Your task to perform on an android device: What's the weather? Image 0: 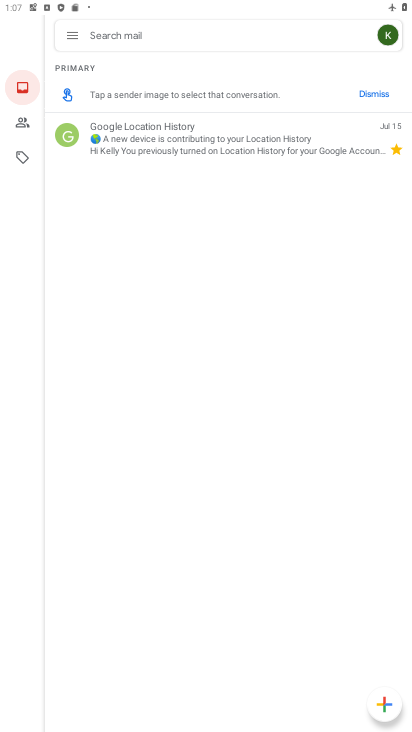
Step 0: press home button
Your task to perform on an android device: What's the weather? Image 1: 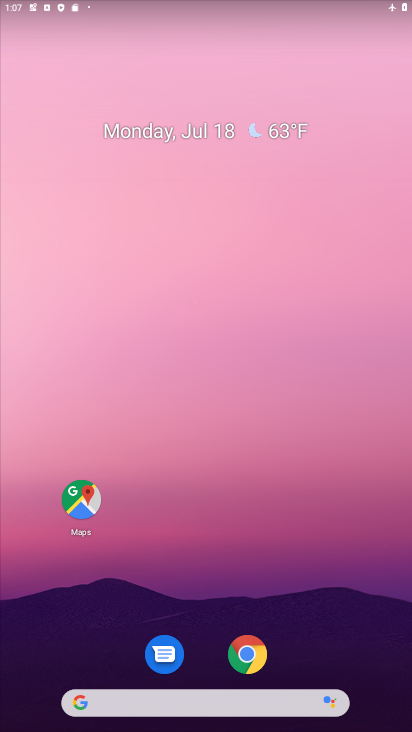
Step 1: drag from (202, 597) to (168, 81)
Your task to perform on an android device: What's the weather? Image 2: 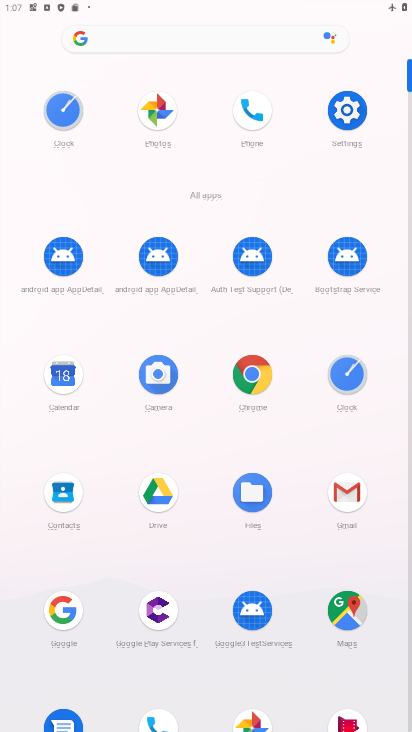
Step 2: click (58, 620)
Your task to perform on an android device: What's the weather? Image 3: 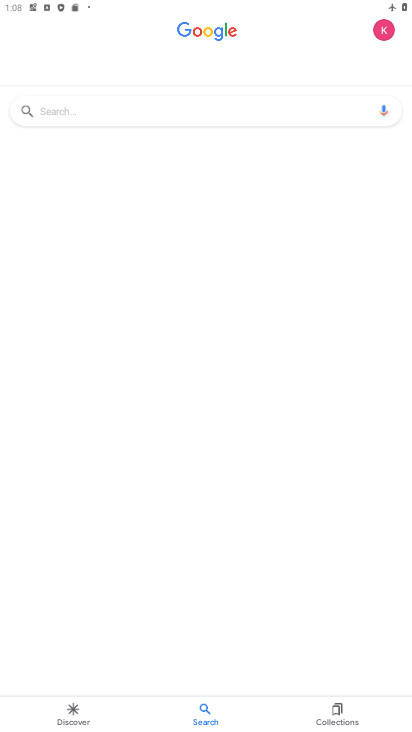
Step 3: click (97, 117)
Your task to perform on an android device: What's the weather? Image 4: 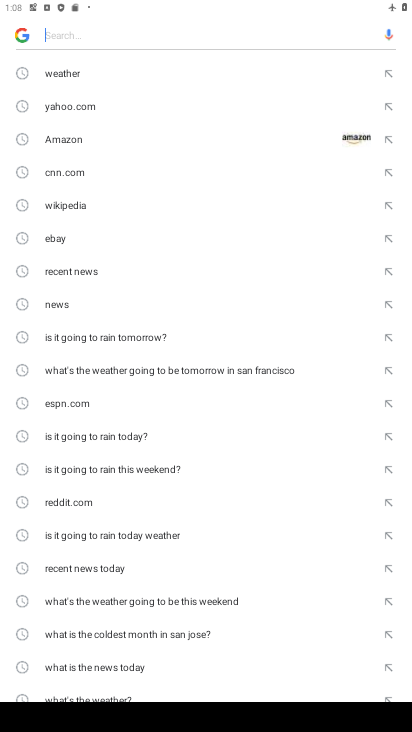
Step 4: click (62, 63)
Your task to perform on an android device: What's the weather? Image 5: 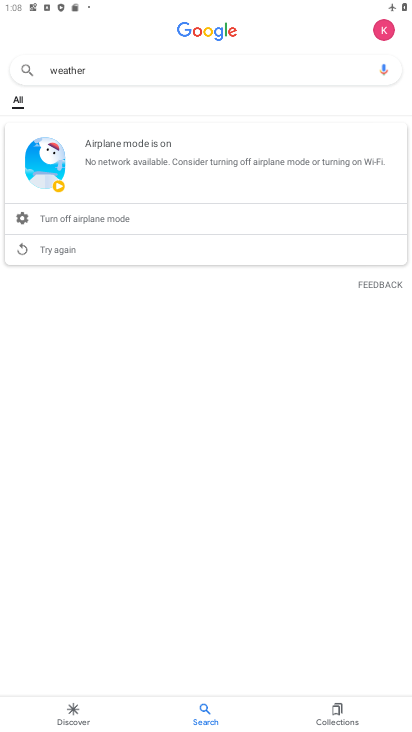
Step 5: task complete